Your task to perform on an android device: What's on my calendar tomorrow? Image 0: 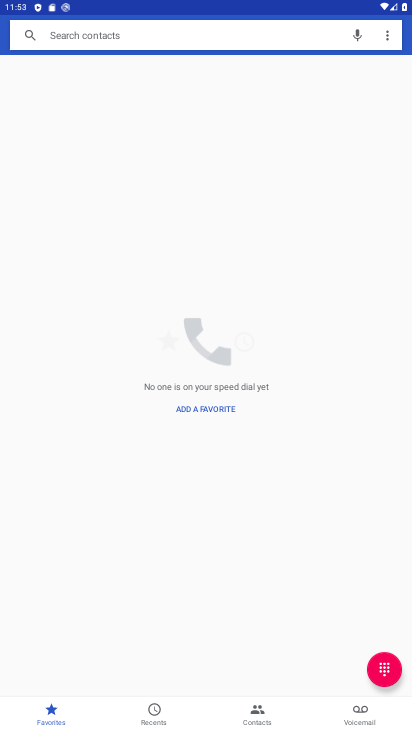
Step 0: press home button
Your task to perform on an android device: What's on my calendar tomorrow? Image 1: 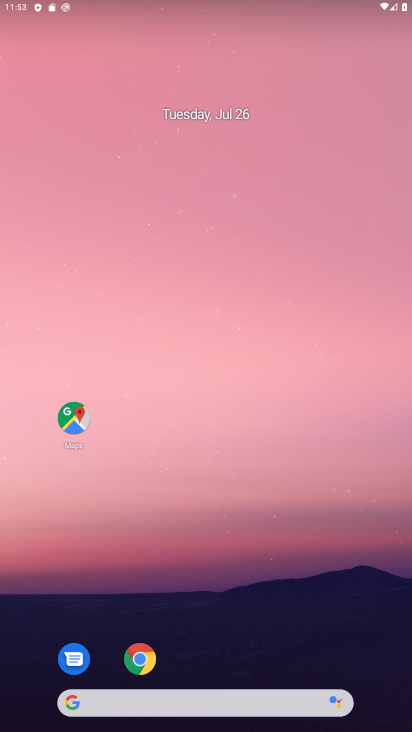
Step 1: drag from (313, 533) to (296, 286)
Your task to perform on an android device: What's on my calendar tomorrow? Image 2: 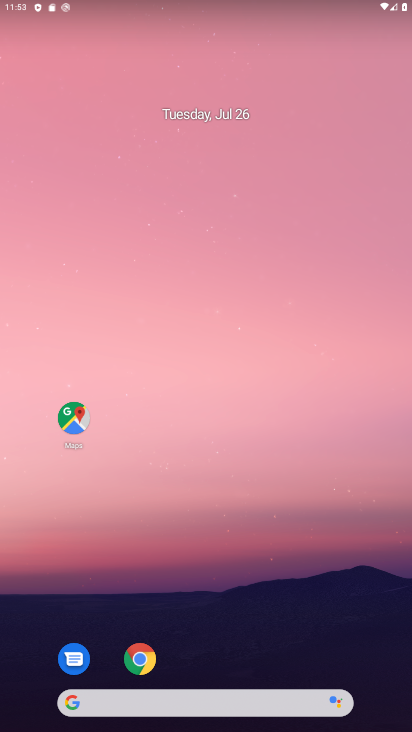
Step 2: drag from (298, 624) to (292, 195)
Your task to perform on an android device: What's on my calendar tomorrow? Image 3: 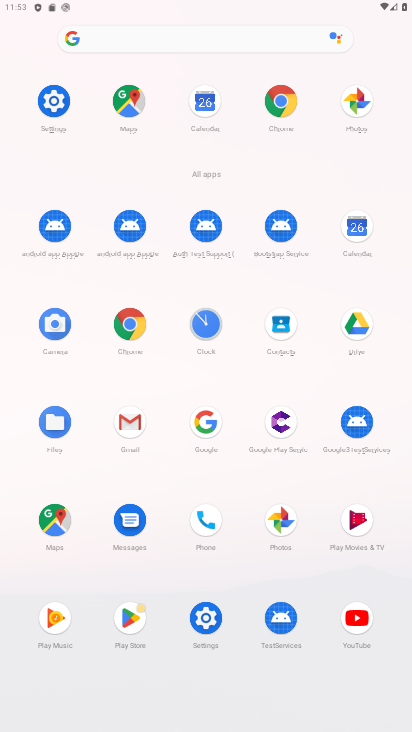
Step 3: click (355, 225)
Your task to perform on an android device: What's on my calendar tomorrow? Image 4: 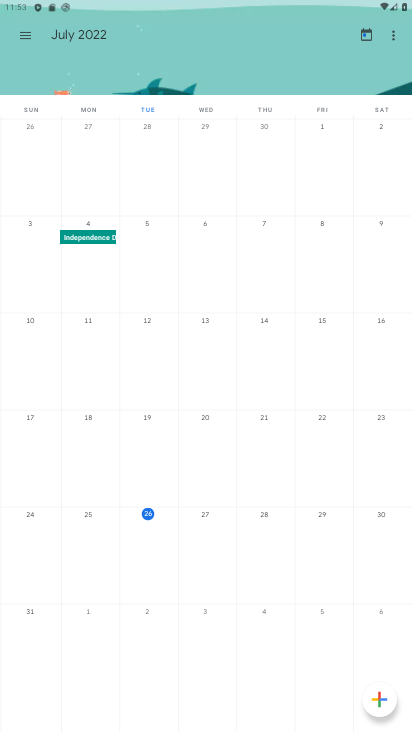
Step 4: task complete